Your task to perform on an android device: Open the stopwatch Image 0: 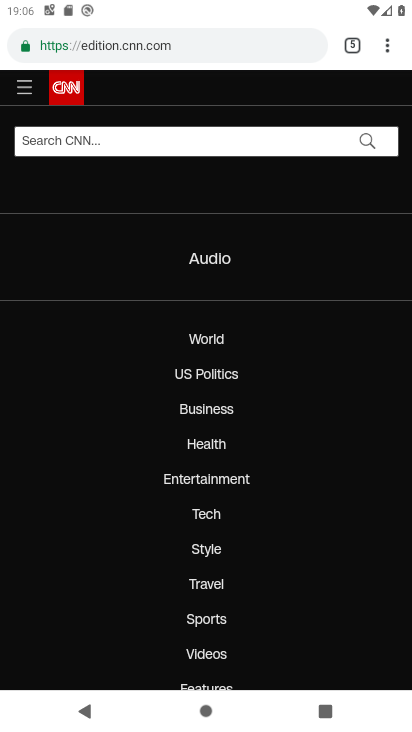
Step 0: press home button
Your task to perform on an android device: Open the stopwatch Image 1: 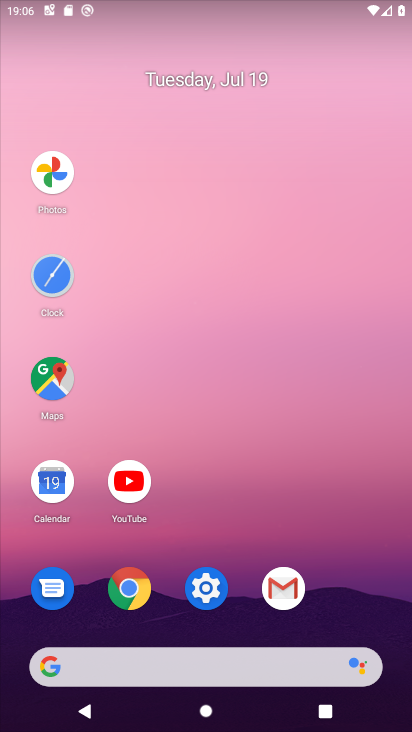
Step 1: click (56, 267)
Your task to perform on an android device: Open the stopwatch Image 2: 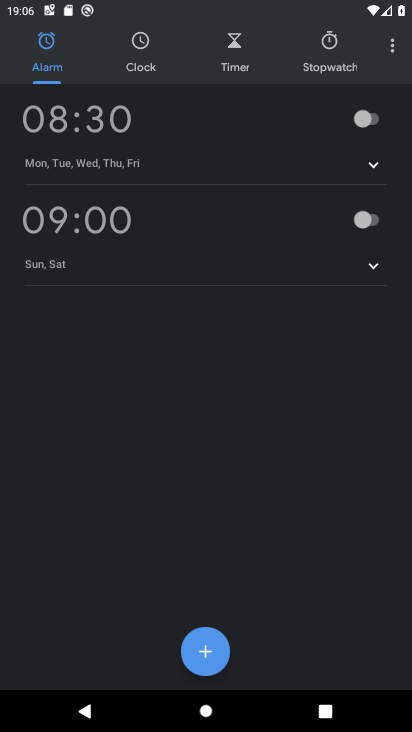
Step 2: click (327, 43)
Your task to perform on an android device: Open the stopwatch Image 3: 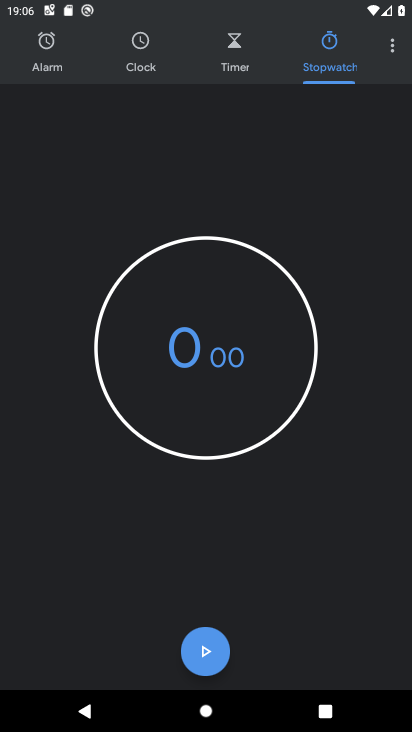
Step 3: task complete